Your task to perform on an android device: manage bookmarks in the chrome app Image 0: 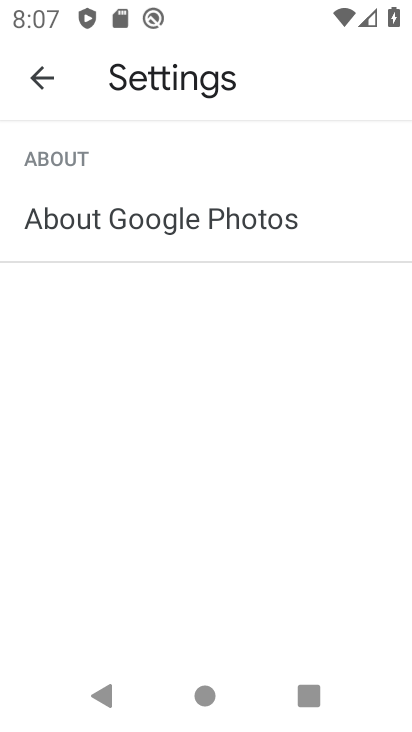
Step 0: press home button
Your task to perform on an android device: manage bookmarks in the chrome app Image 1: 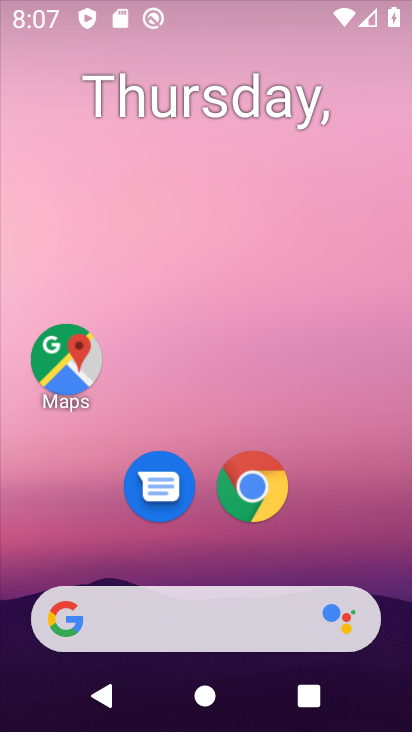
Step 1: drag from (177, 699) to (285, 200)
Your task to perform on an android device: manage bookmarks in the chrome app Image 2: 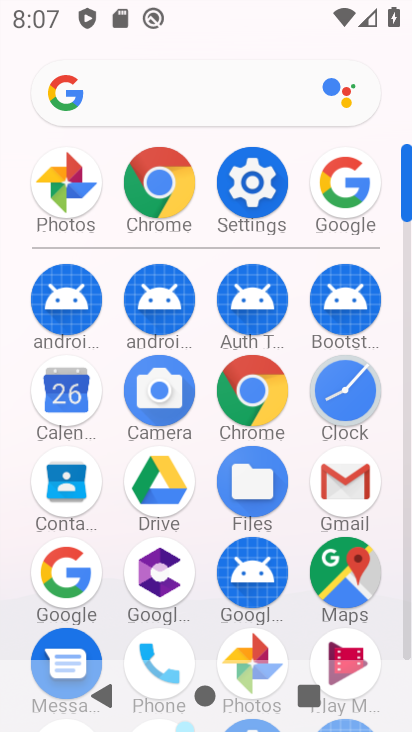
Step 2: click (262, 399)
Your task to perform on an android device: manage bookmarks in the chrome app Image 3: 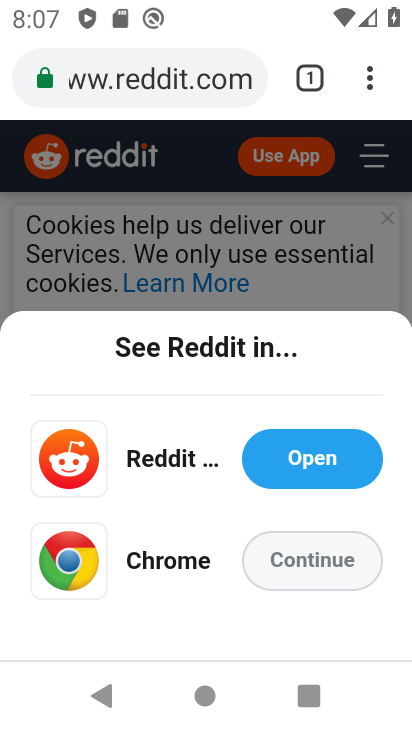
Step 3: click (365, 94)
Your task to perform on an android device: manage bookmarks in the chrome app Image 4: 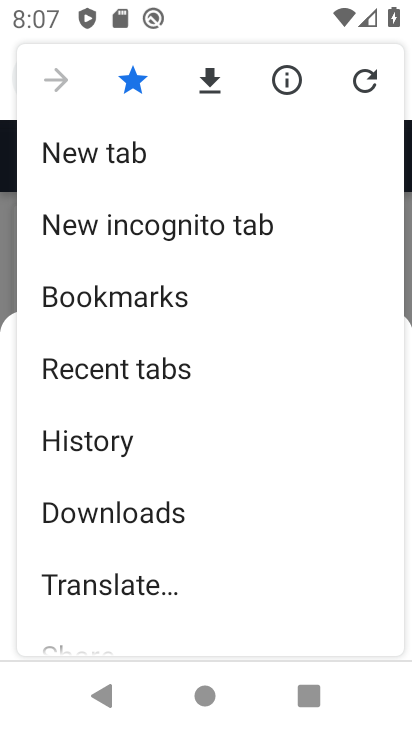
Step 4: click (226, 289)
Your task to perform on an android device: manage bookmarks in the chrome app Image 5: 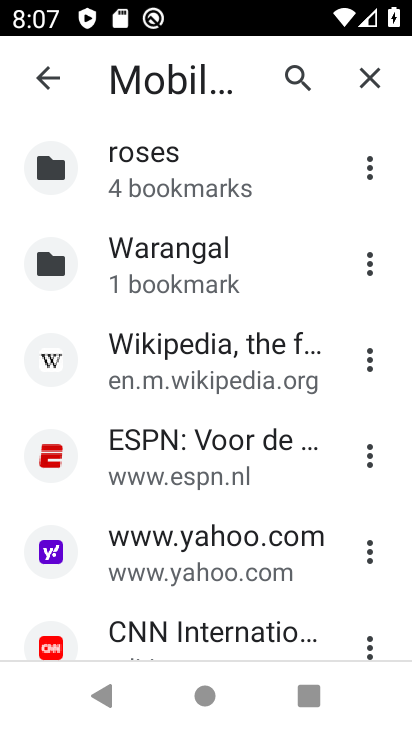
Step 5: task complete